Your task to perform on an android device: What's the weather? Image 0: 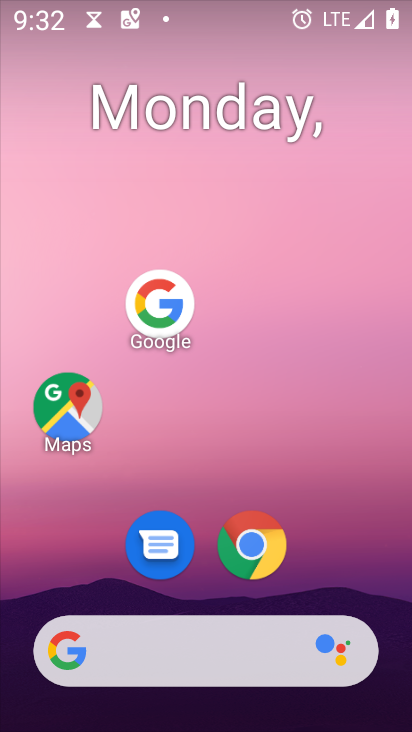
Step 0: press home button
Your task to perform on an android device: What's the weather? Image 1: 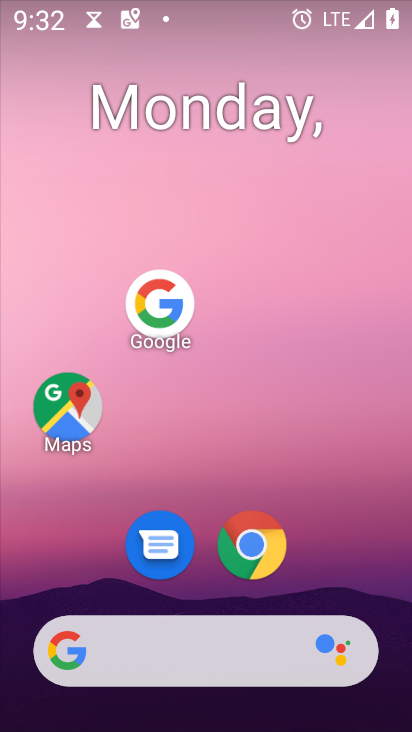
Step 1: click (77, 655)
Your task to perform on an android device: What's the weather? Image 2: 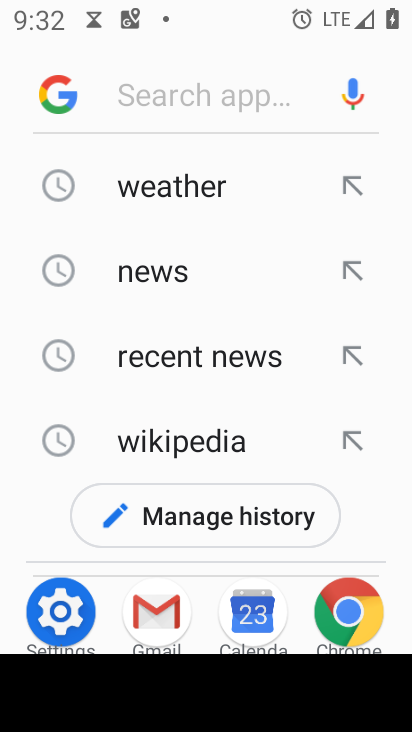
Step 2: click (173, 195)
Your task to perform on an android device: What's the weather? Image 3: 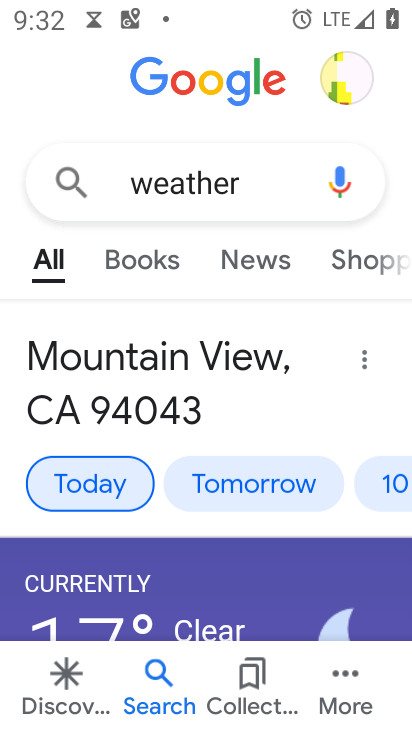
Step 3: task complete